Your task to perform on an android device: toggle notification dots Image 0: 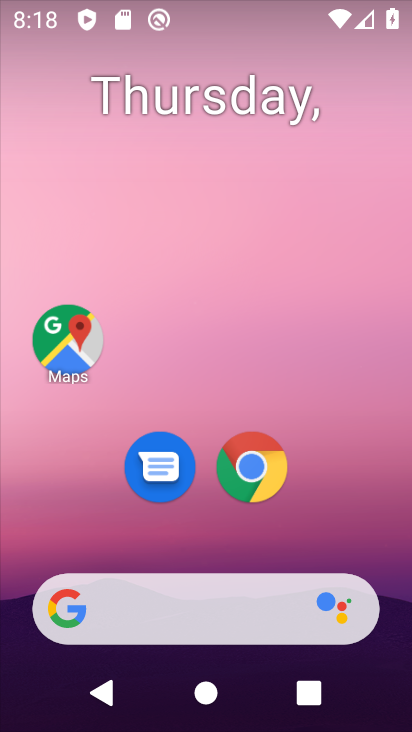
Step 0: drag from (335, 516) to (252, 100)
Your task to perform on an android device: toggle notification dots Image 1: 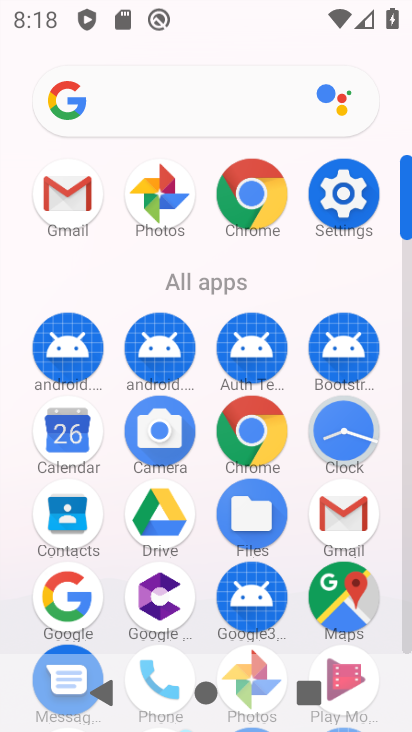
Step 1: click (346, 191)
Your task to perform on an android device: toggle notification dots Image 2: 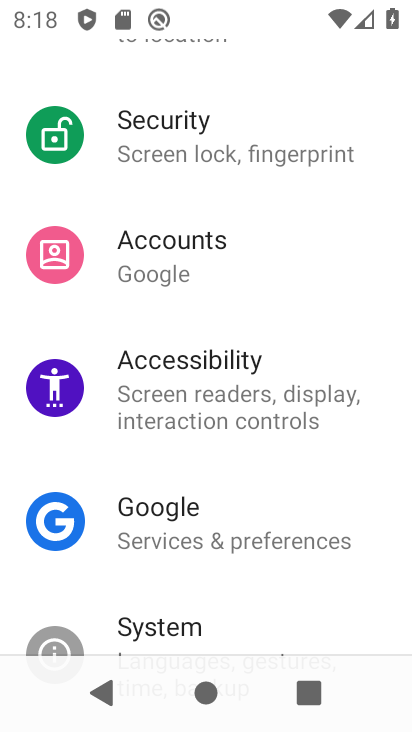
Step 2: drag from (278, 260) to (307, 648)
Your task to perform on an android device: toggle notification dots Image 3: 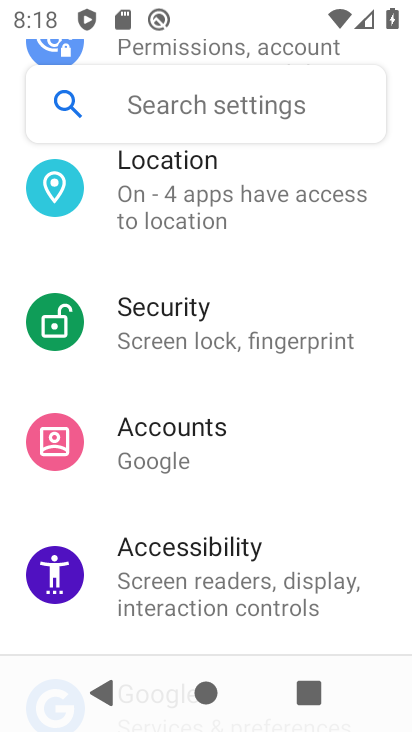
Step 3: drag from (200, 263) to (139, 688)
Your task to perform on an android device: toggle notification dots Image 4: 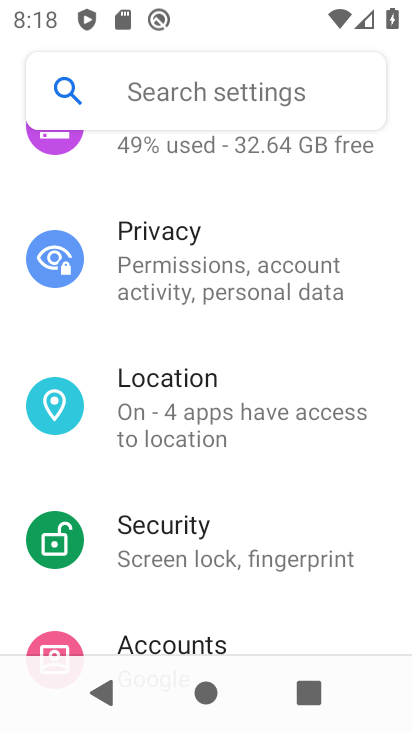
Step 4: drag from (216, 191) to (344, 524)
Your task to perform on an android device: toggle notification dots Image 5: 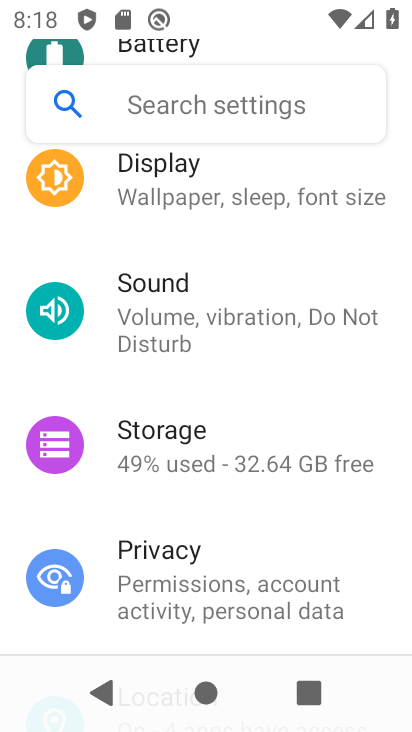
Step 5: drag from (226, 355) to (226, 718)
Your task to perform on an android device: toggle notification dots Image 6: 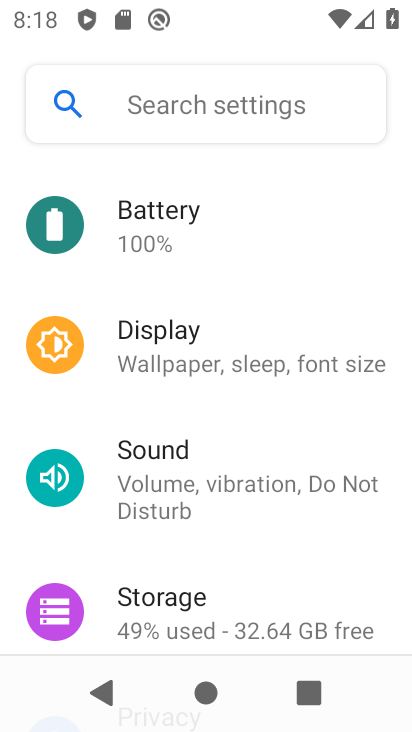
Step 6: drag from (202, 274) to (195, 729)
Your task to perform on an android device: toggle notification dots Image 7: 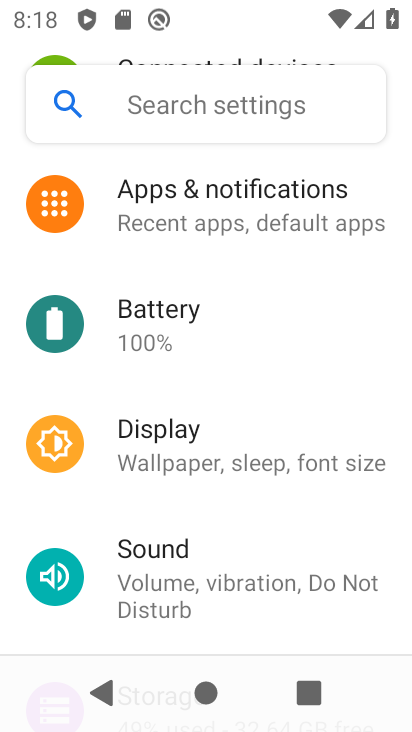
Step 7: click (206, 197)
Your task to perform on an android device: toggle notification dots Image 8: 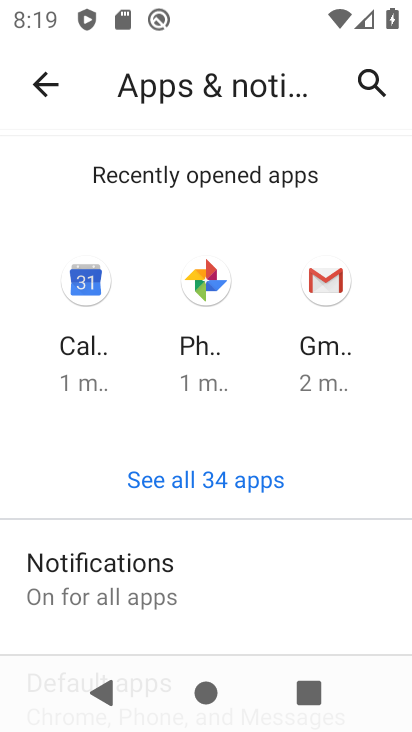
Step 8: drag from (244, 575) to (193, 234)
Your task to perform on an android device: toggle notification dots Image 9: 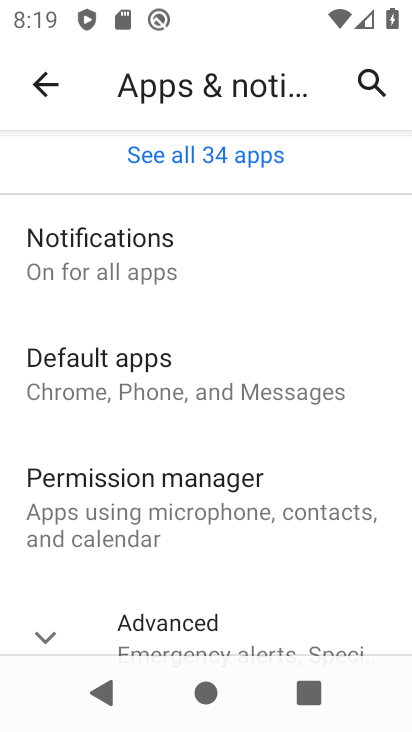
Step 9: drag from (191, 443) to (171, 259)
Your task to perform on an android device: toggle notification dots Image 10: 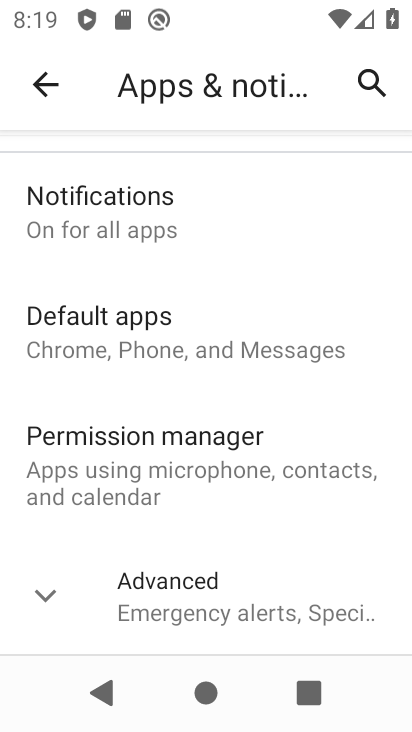
Step 10: click (86, 181)
Your task to perform on an android device: toggle notification dots Image 11: 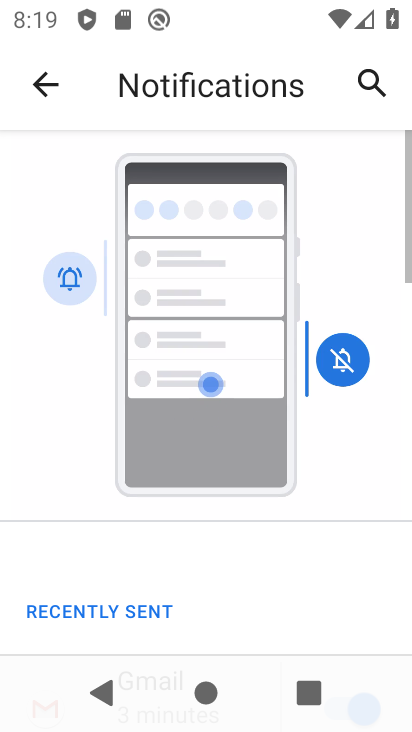
Step 11: drag from (208, 481) to (172, 120)
Your task to perform on an android device: toggle notification dots Image 12: 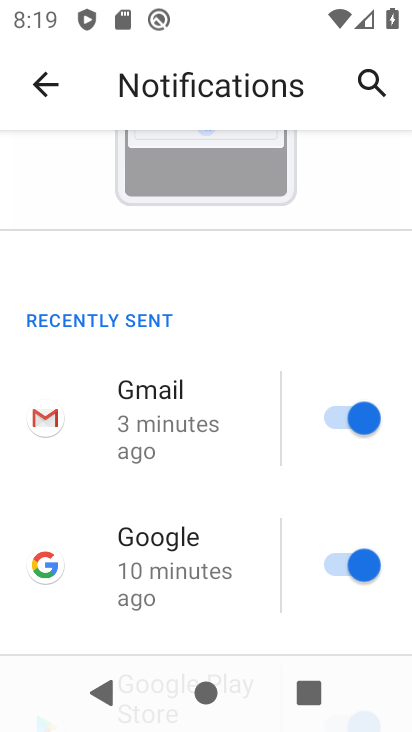
Step 12: drag from (244, 471) to (192, 204)
Your task to perform on an android device: toggle notification dots Image 13: 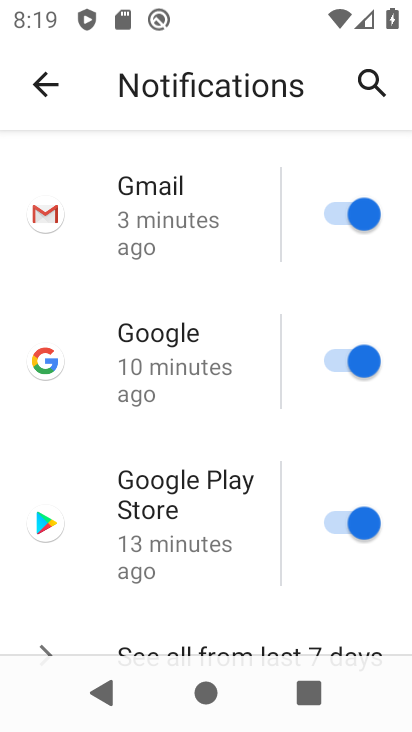
Step 13: drag from (231, 587) to (184, 149)
Your task to perform on an android device: toggle notification dots Image 14: 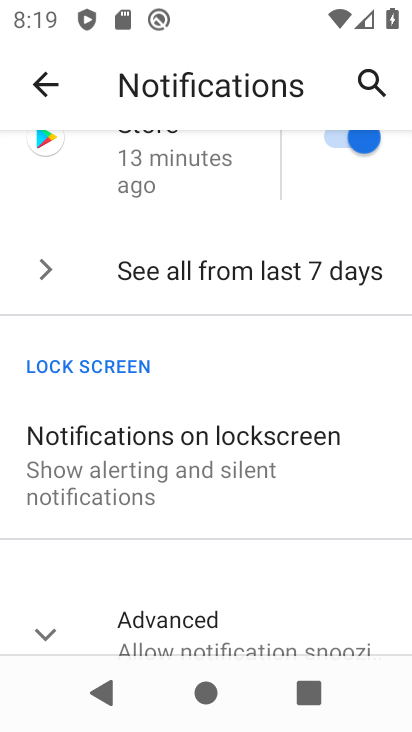
Step 14: click (49, 622)
Your task to perform on an android device: toggle notification dots Image 15: 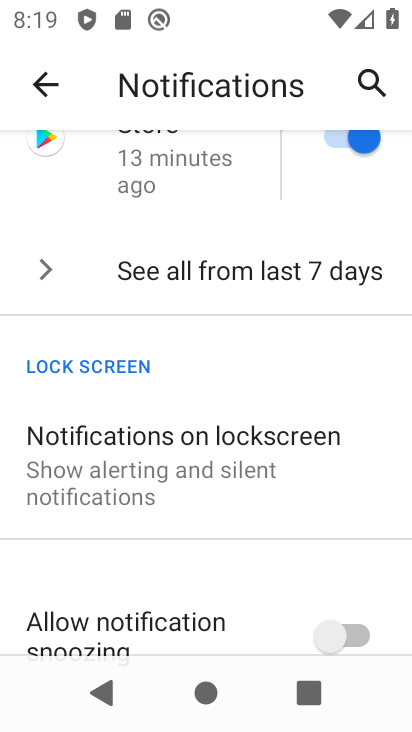
Step 15: drag from (235, 539) to (203, 189)
Your task to perform on an android device: toggle notification dots Image 16: 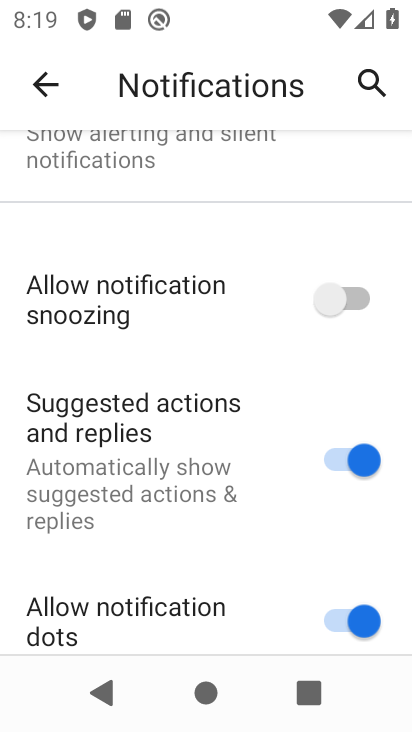
Step 16: drag from (236, 534) to (182, 282)
Your task to perform on an android device: toggle notification dots Image 17: 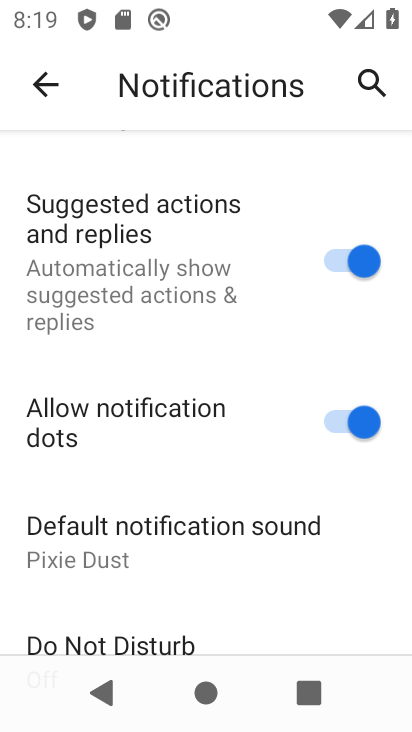
Step 17: click (341, 412)
Your task to perform on an android device: toggle notification dots Image 18: 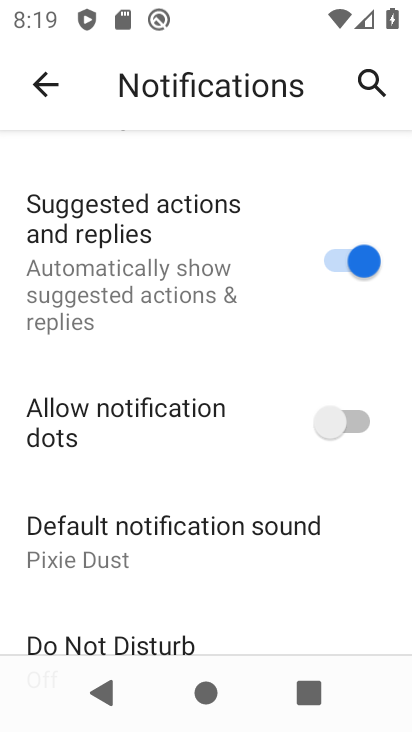
Step 18: task complete